Your task to perform on an android device: uninstall "Flipkart Online Shopping App" Image 0: 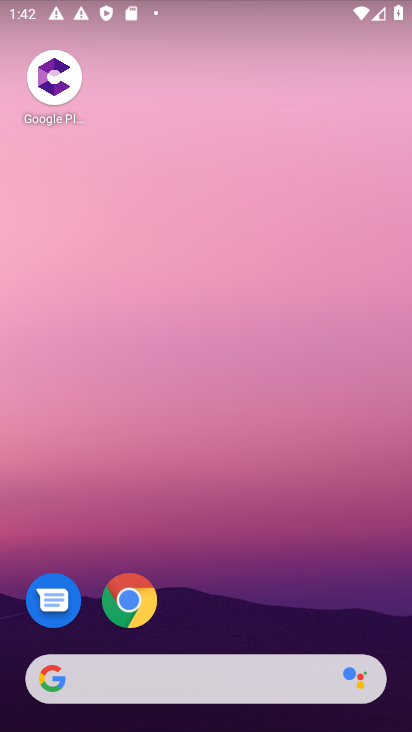
Step 0: drag from (245, 295) to (297, 135)
Your task to perform on an android device: uninstall "Flipkart Online Shopping App" Image 1: 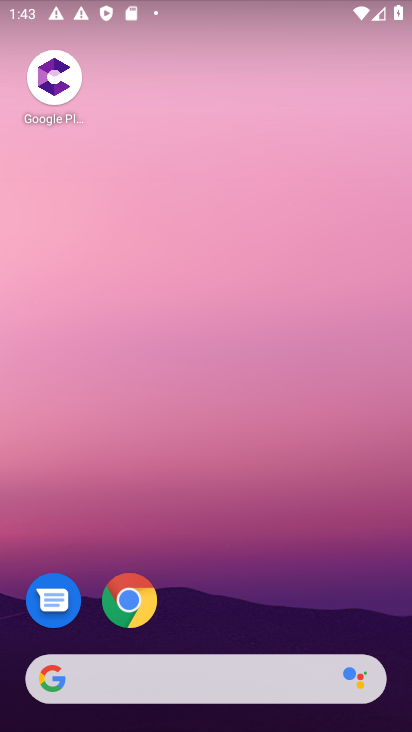
Step 1: drag from (144, 723) to (297, 0)
Your task to perform on an android device: uninstall "Flipkart Online Shopping App" Image 2: 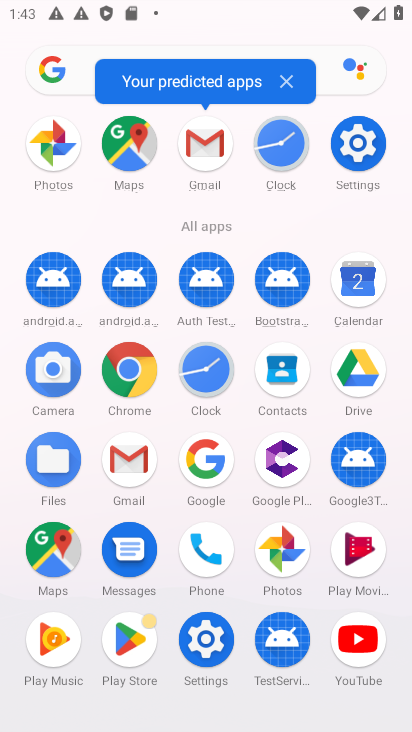
Step 2: click (142, 634)
Your task to perform on an android device: uninstall "Flipkart Online Shopping App" Image 3: 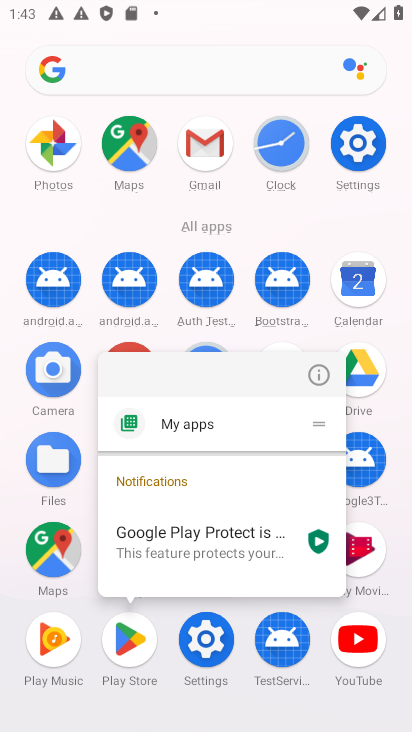
Step 3: click (130, 647)
Your task to perform on an android device: uninstall "Flipkart Online Shopping App" Image 4: 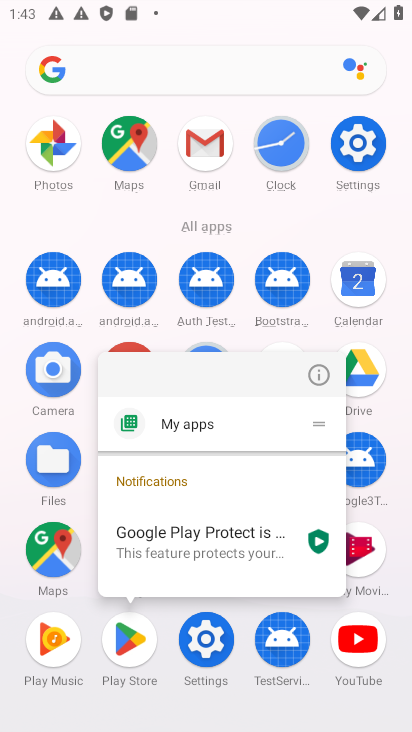
Step 4: click (134, 655)
Your task to perform on an android device: uninstall "Flipkart Online Shopping App" Image 5: 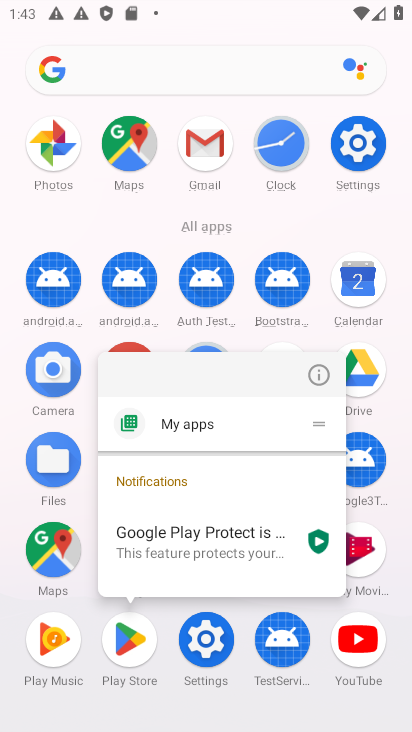
Step 5: click (134, 655)
Your task to perform on an android device: uninstall "Flipkart Online Shopping App" Image 6: 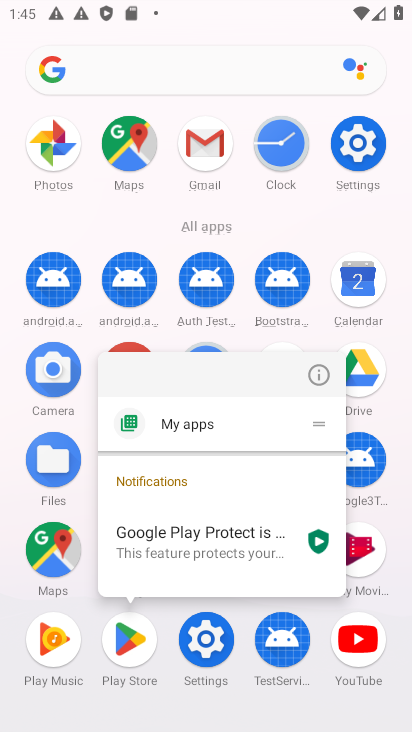
Step 6: click (137, 650)
Your task to perform on an android device: uninstall "Flipkart Online Shopping App" Image 7: 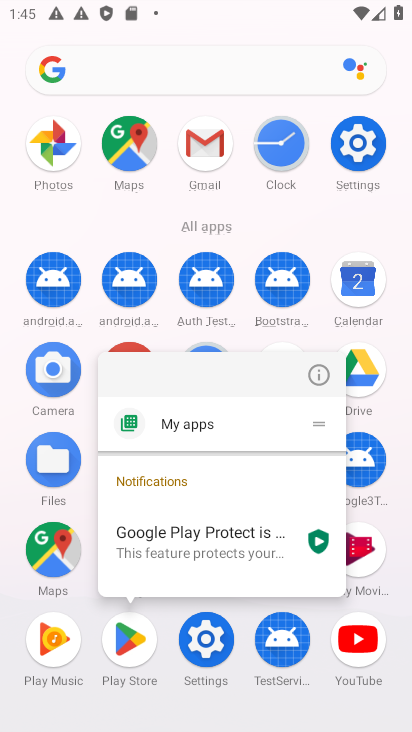
Step 7: click (110, 634)
Your task to perform on an android device: uninstall "Flipkart Online Shopping App" Image 8: 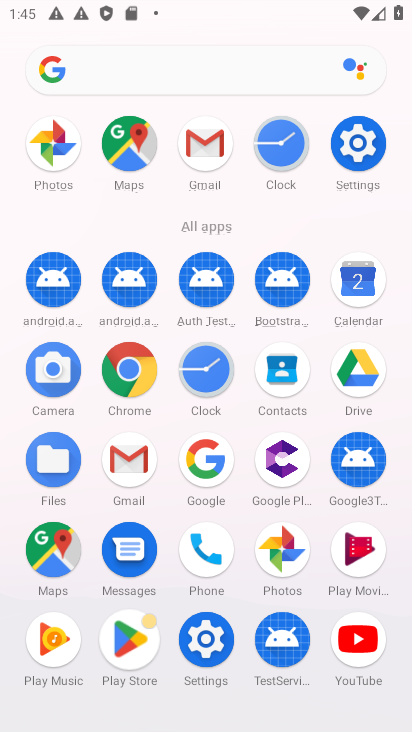
Step 8: click (110, 634)
Your task to perform on an android device: uninstall "Flipkart Online Shopping App" Image 9: 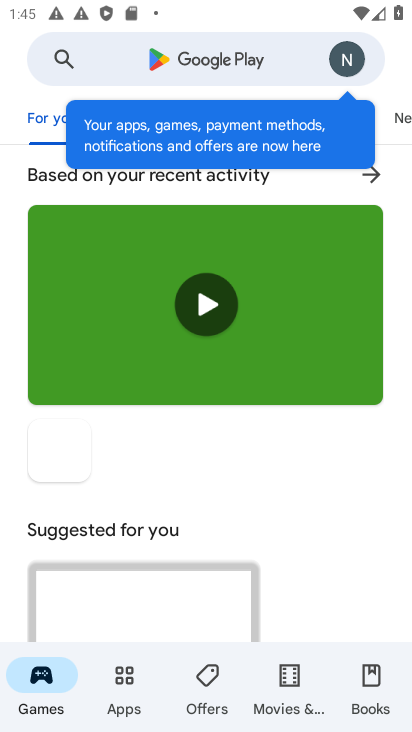
Step 9: click (232, 58)
Your task to perform on an android device: uninstall "Flipkart Online Shopping App" Image 10: 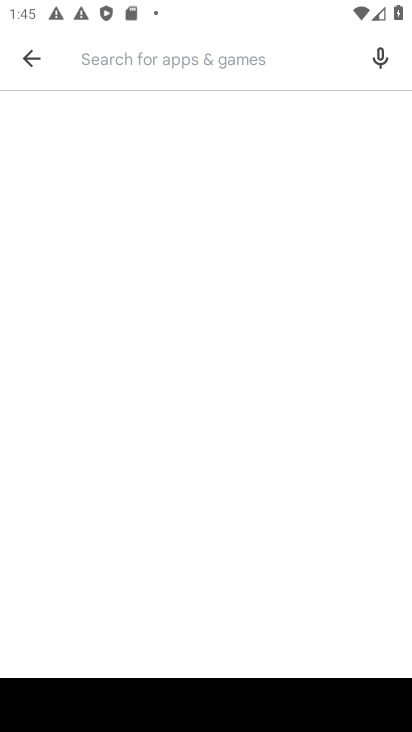
Step 10: click (162, 61)
Your task to perform on an android device: uninstall "Flipkart Online Shopping App" Image 11: 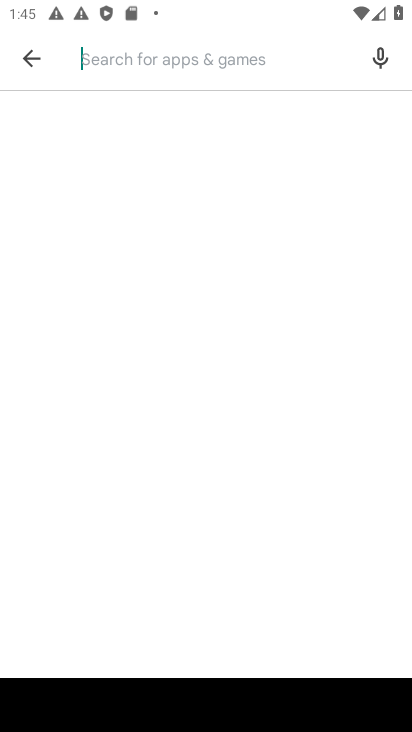
Step 11: type "Flipkart Online Shopping App"
Your task to perform on an android device: uninstall "Flipkart Online Shopping App" Image 12: 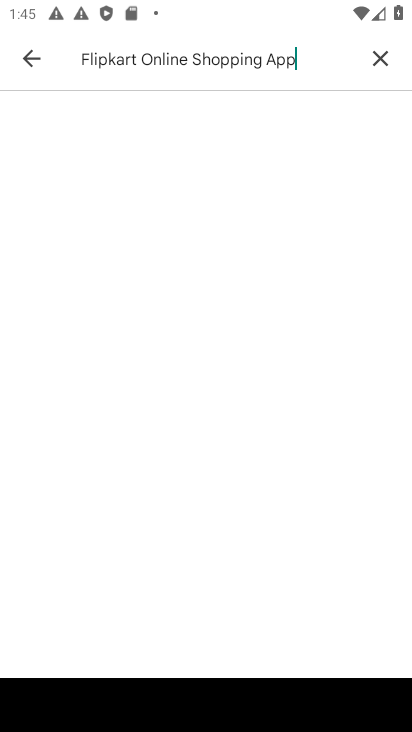
Step 12: type ""
Your task to perform on an android device: uninstall "Flipkart Online Shopping App" Image 13: 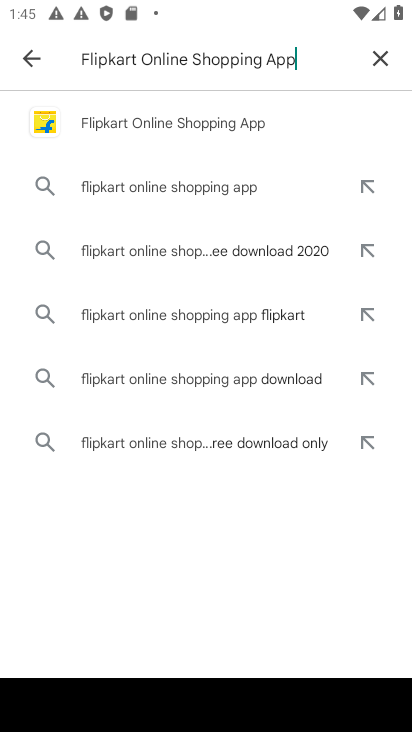
Step 13: click (174, 130)
Your task to perform on an android device: uninstall "Flipkart Online Shopping App" Image 14: 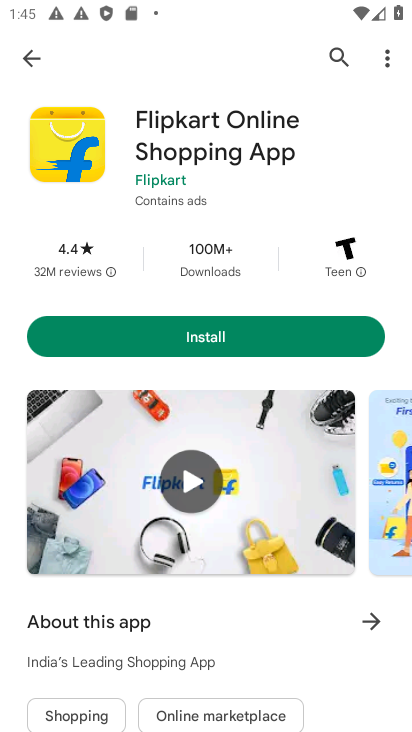
Step 14: task complete